Your task to perform on an android device: Go to ESPN.com Image 0: 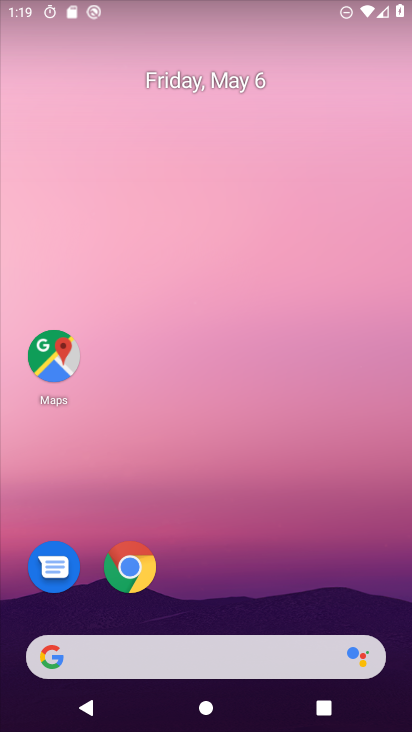
Step 0: drag from (282, 698) to (241, 214)
Your task to perform on an android device: Go to ESPN.com Image 1: 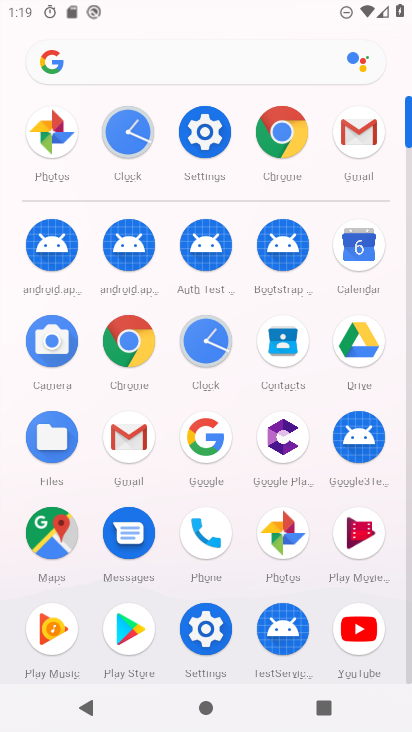
Step 1: click (287, 151)
Your task to perform on an android device: Go to ESPN.com Image 2: 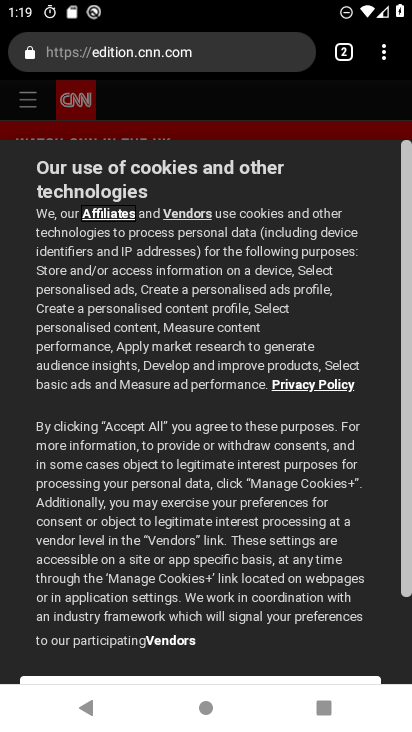
Step 2: click (343, 59)
Your task to perform on an android device: Go to ESPN.com Image 3: 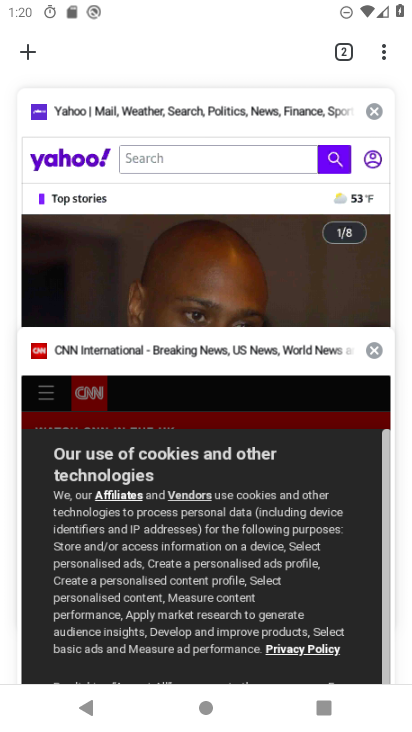
Step 3: click (37, 52)
Your task to perform on an android device: Go to ESPN.com Image 4: 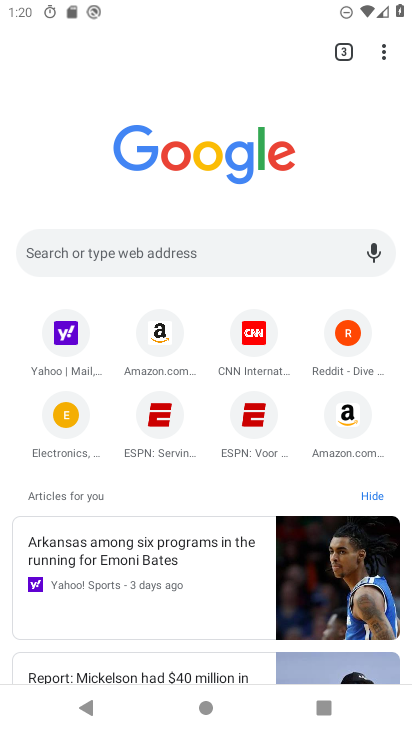
Step 4: click (247, 425)
Your task to perform on an android device: Go to ESPN.com Image 5: 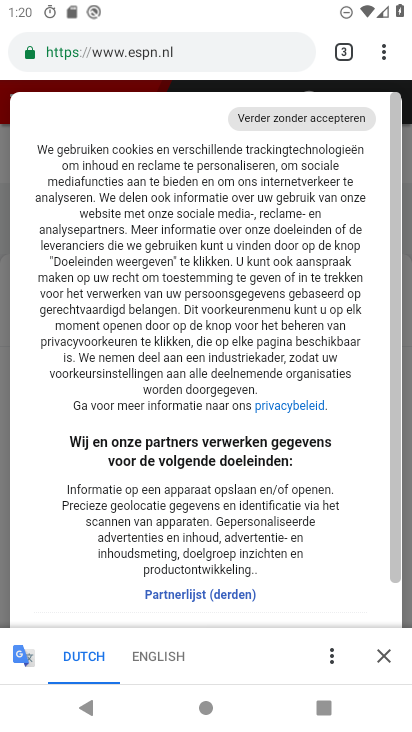
Step 5: task complete